Your task to perform on an android device: turn off airplane mode Image 0: 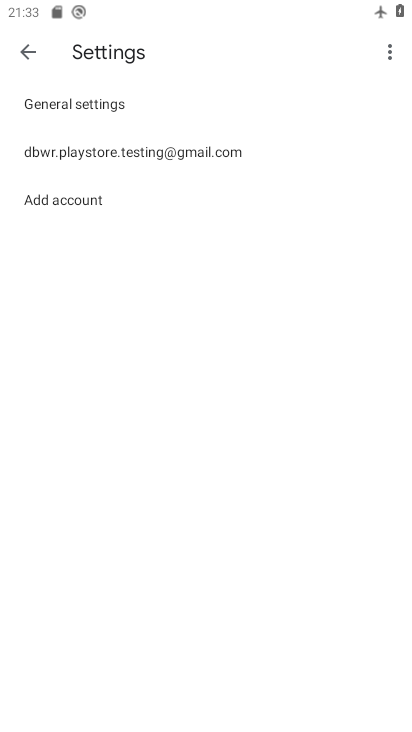
Step 0: click (170, 158)
Your task to perform on an android device: turn off airplane mode Image 1: 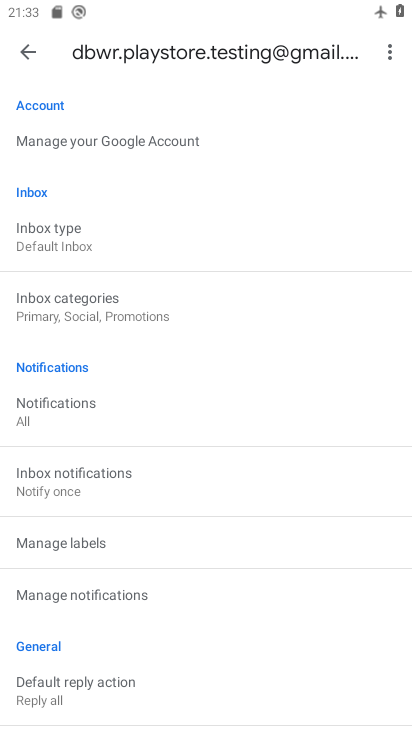
Step 1: press home button
Your task to perform on an android device: turn off airplane mode Image 2: 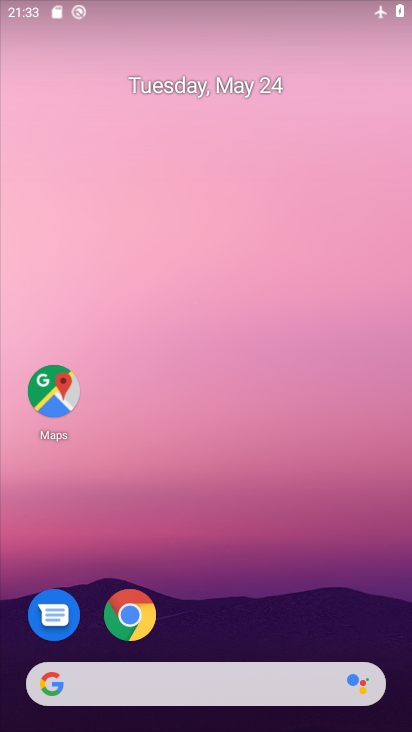
Step 2: drag from (229, 566) to (233, 173)
Your task to perform on an android device: turn off airplane mode Image 3: 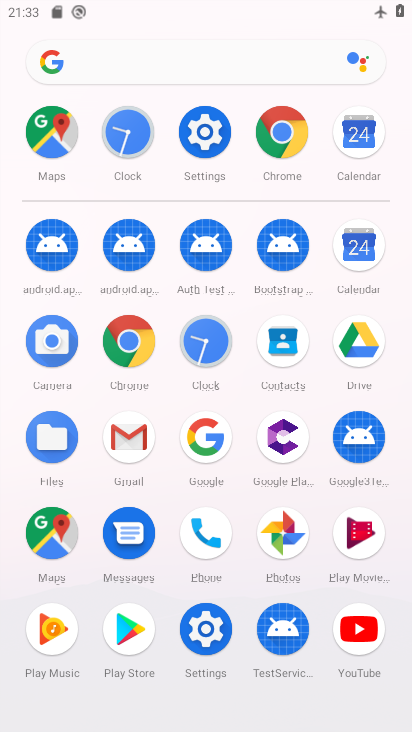
Step 3: click (200, 142)
Your task to perform on an android device: turn off airplane mode Image 4: 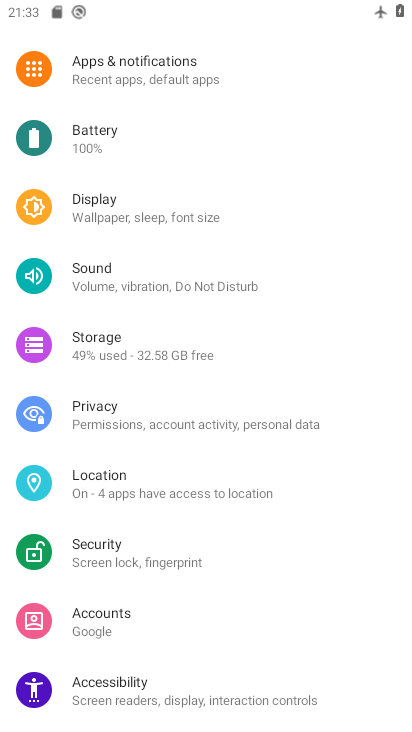
Step 4: click (207, 128)
Your task to perform on an android device: turn off airplane mode Image 5: 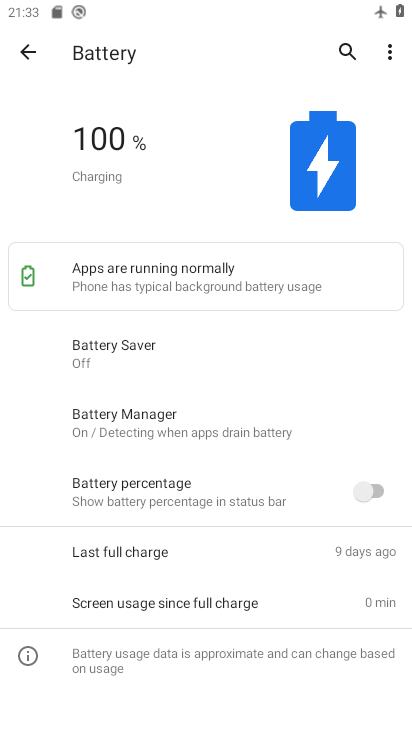
Step 5: click (35, 40)
Your task to perform on an android device: turn off airplane mode Image 6: 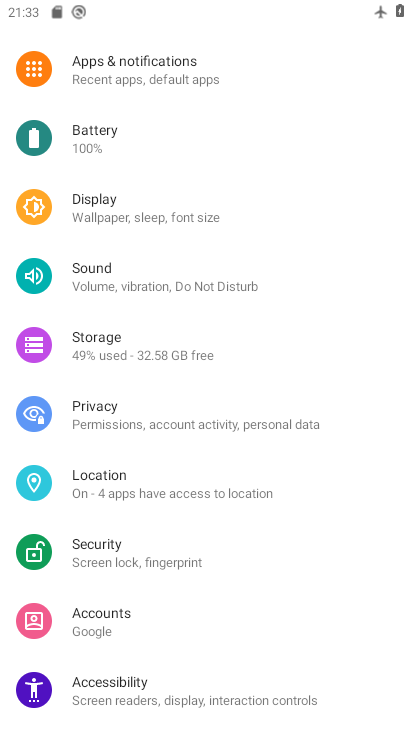
Step 6: click (142, 75)
Your task to perform on an android device: turn off airplane mode Image 7: 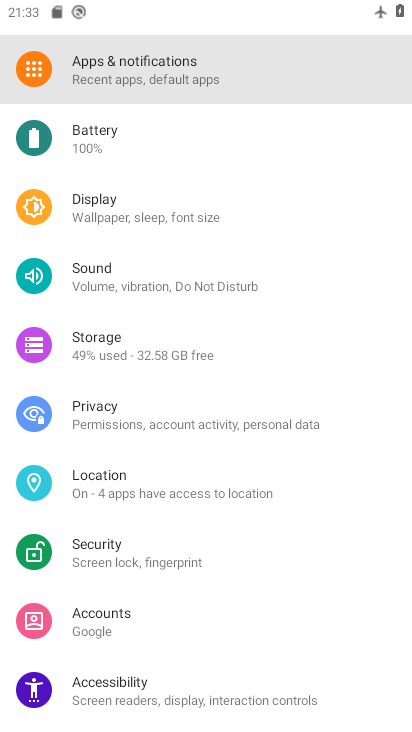
Step 7: drag from (144, 99) to (145, 290)
Your task to perform on an android device: turn off airplane mode Image 8: 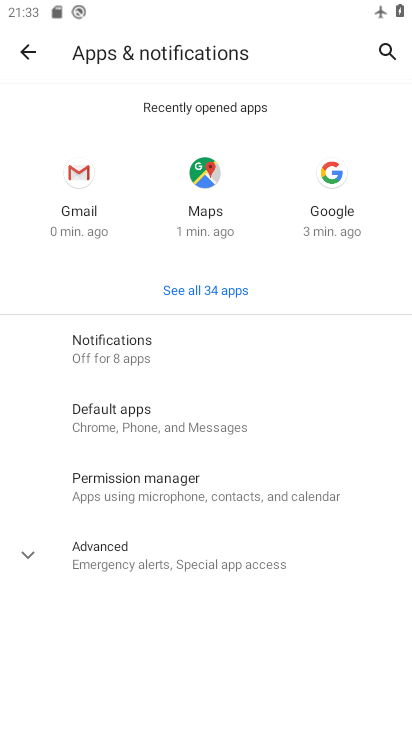
Step 8: click (35, 57)
Your task to perform on an android device: turn off airplane mode Image 9: 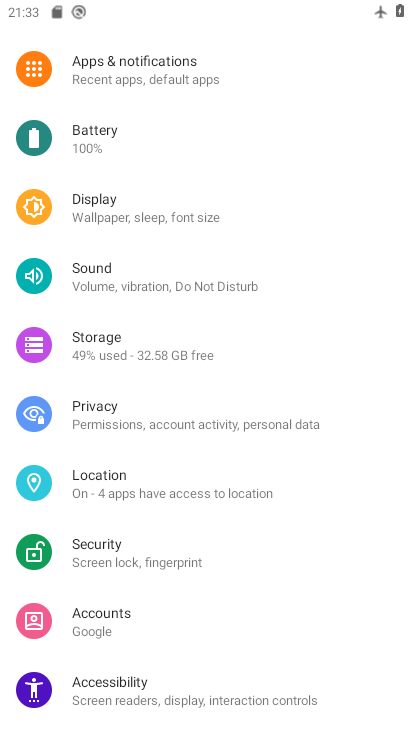
Step 9: click (156, 163)
Your task to perform on an android device: turn off airplane mode Image 10: 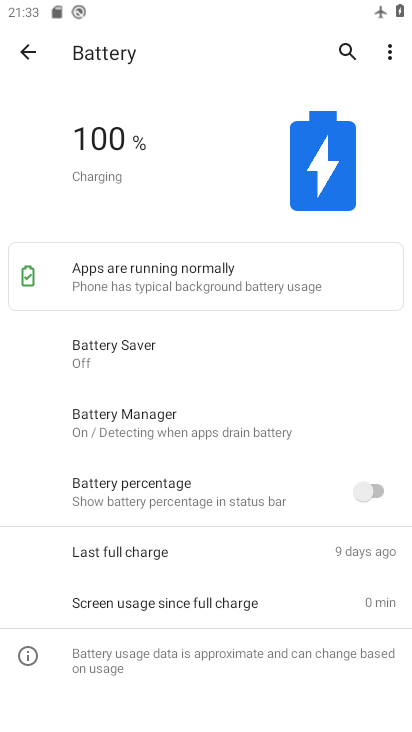
Step 10: click (43, 45)
Your task to perform on an android device: turn off airplane mode Image 11: 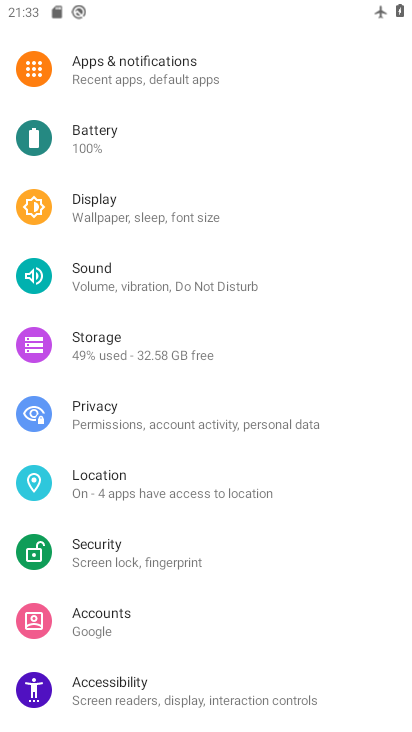
Step 11: drag from (229, 297) to (252, 722)
Your task to perform on an android device: turn off airplane mode Image 12: 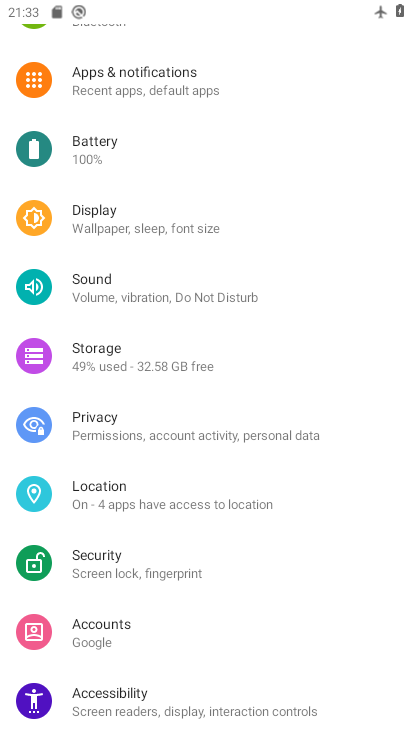
Step 12: click (264, 568)
Your task to perform on an android device: turn off airplane mode Image 13: 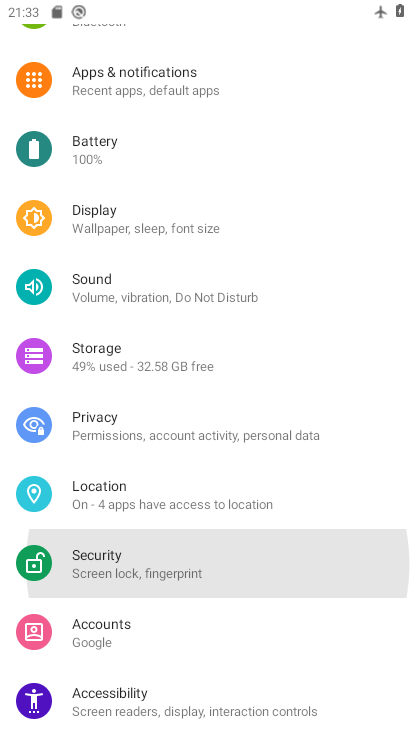
Step 13: drag from (199, 293) to (216, 518)
Your task to perform on an android device: turn off airplane mode Image 14: 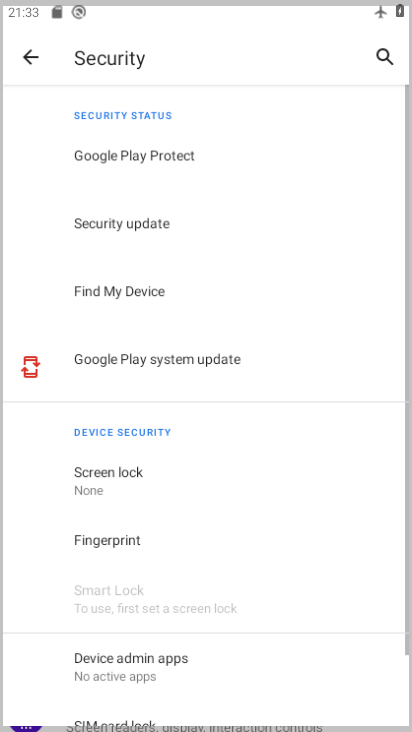
Step 14: drag from (163, 232) to (179, 374)
Your task to perform on an android device: turn off airplane mode Image 15: 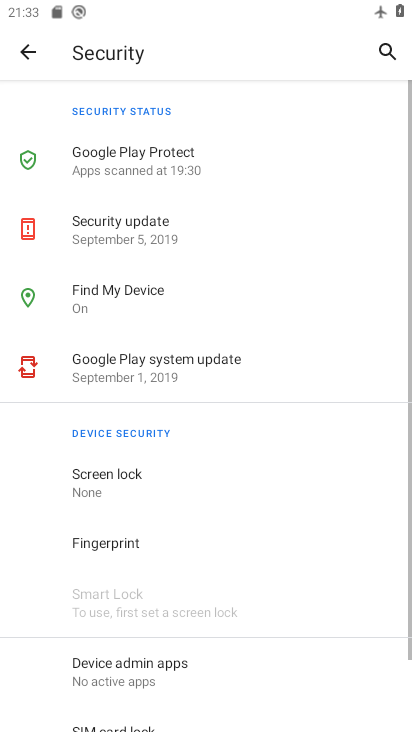
Step 15: drag from (155, 133) to (160, 455)
Your task to perform on an android device: turn off airplane mode Image 16: 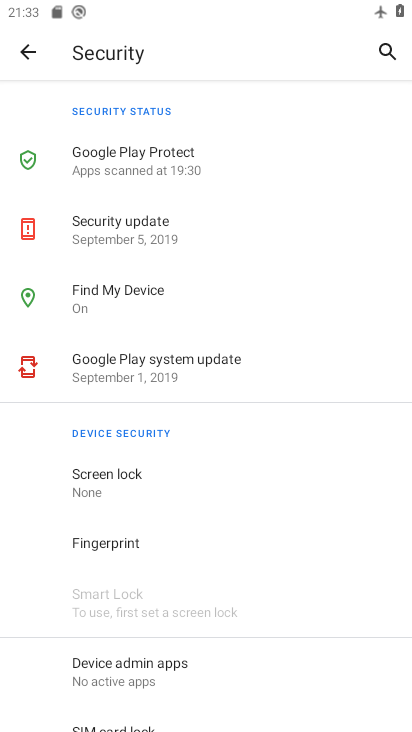
Step 16: click (29, 43)
Your task to perform on an android device: turn off airplane mode Image 17: 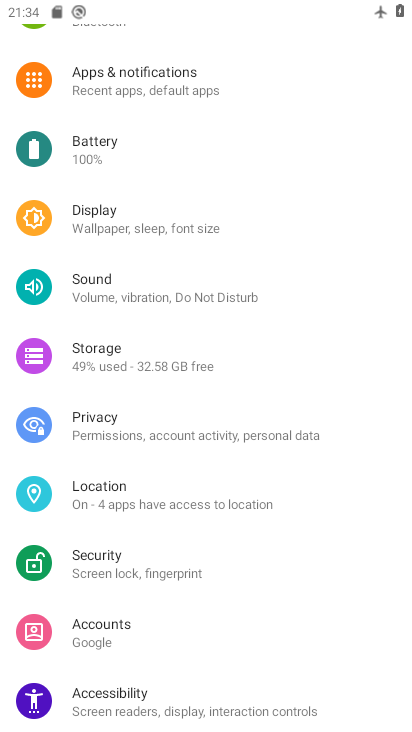
Step 17: drag from (193, 92) to (220, 377)
Your task to perform on an android device: turn off airplane mode Image 18: 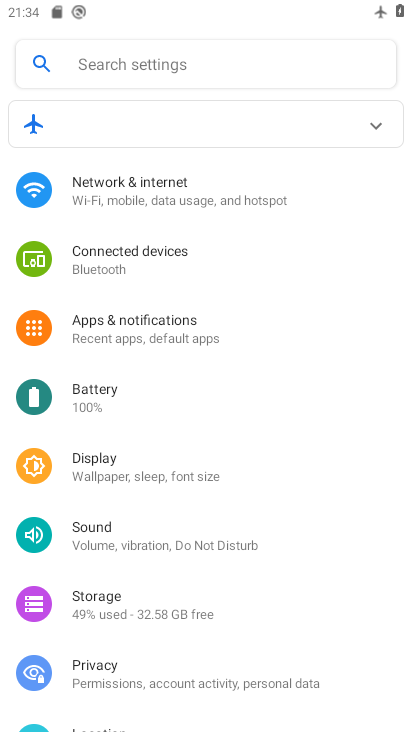
Step 18: click (173, 197)
Your task to perform on an android device: turn off airplane mode Image 19: 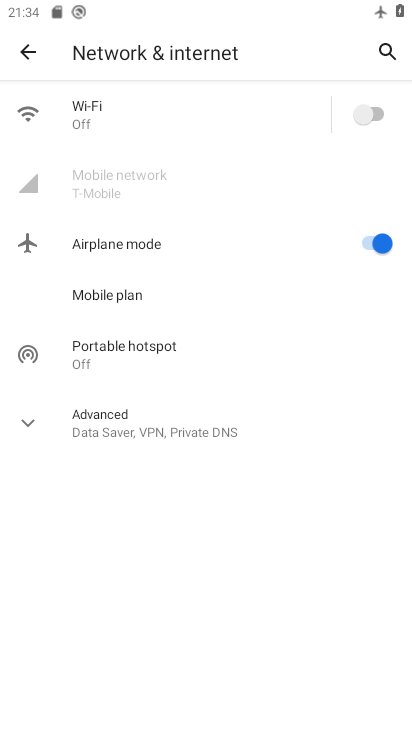
Step 19: click (365, 250)
Your task to perform on an android device: turn off airplane mode Image 20: 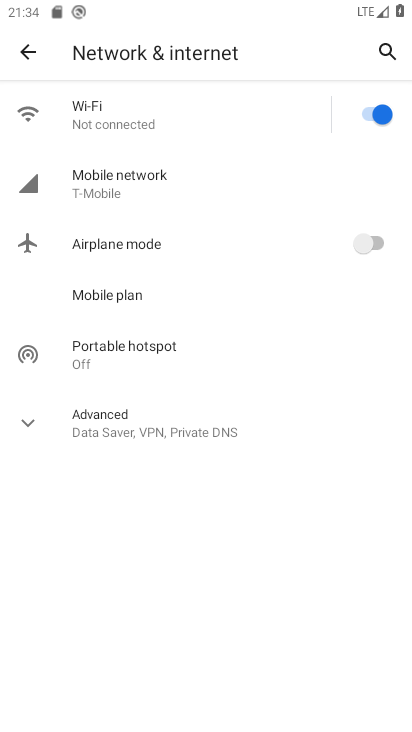
Step 20: task complete